Your task to perform on an android device: see tabs open on other devices in the chrome app Image 0: 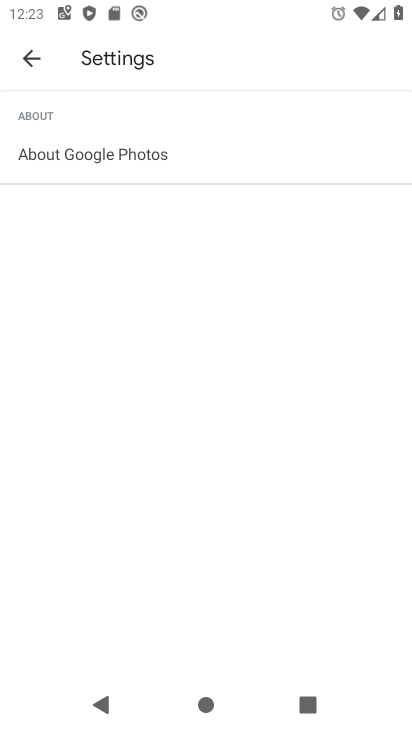
Step 0: press home button
Your task to perform on an android device: see tabs open on other devices in the chrome app Image 1: 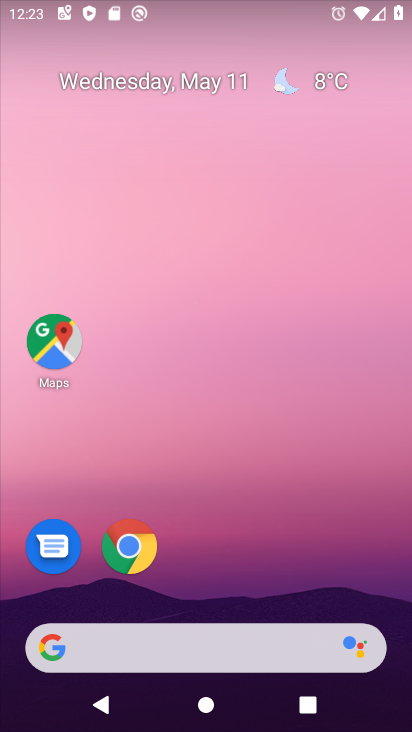
Step 1: drag from (239, 651) to (345, 182)
Your task to perform on an android device: see tabs open on other devices in the chrome app Image 2: 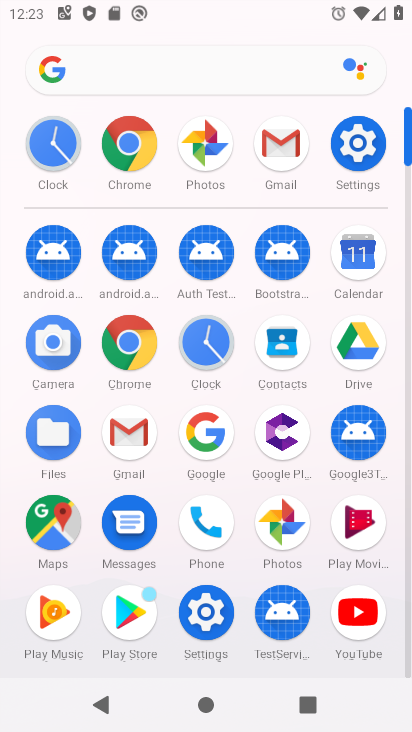
Step 2: click (140, 354)
Your task to perform on an android device: see tabs open on other devices in the chrome app Image 3: 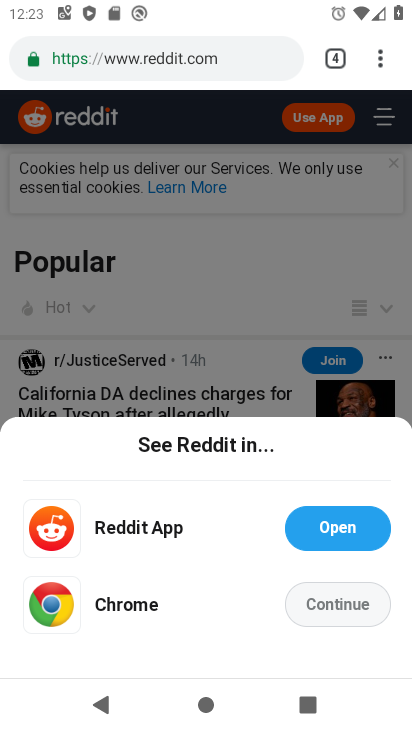
Step 3: task complete